Your task to perform on an android device: all mails in gmail Image 0: 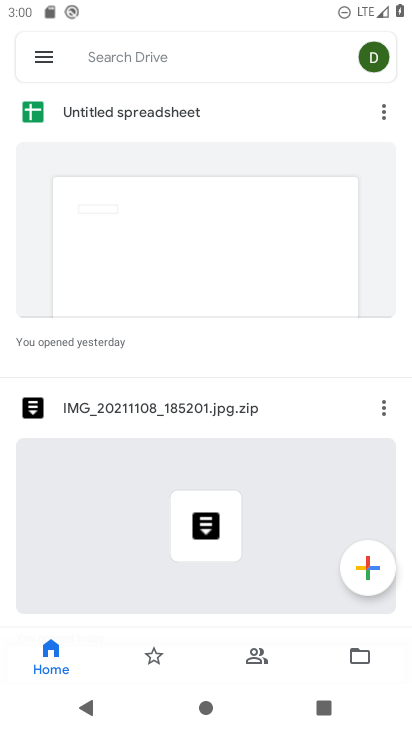
Step 0: press home button
Your task to perform on an android device: all mails in gmail Image 1: 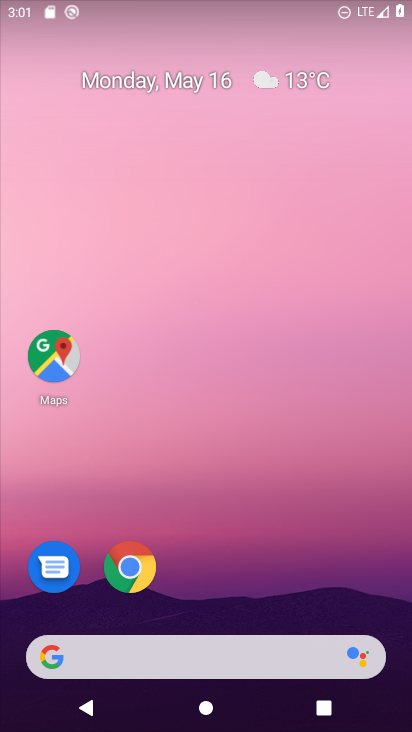
Step 1: drag from (242, 570) to (231, 27)
Your task to perform on an android device: all mails in gmail Image 2: 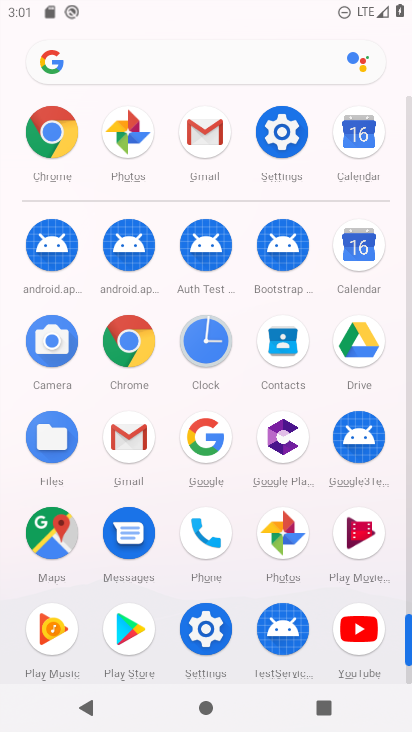
Step 2: click (134, 420)
Your task to perform on an android device: all mails in gmail Image 3: 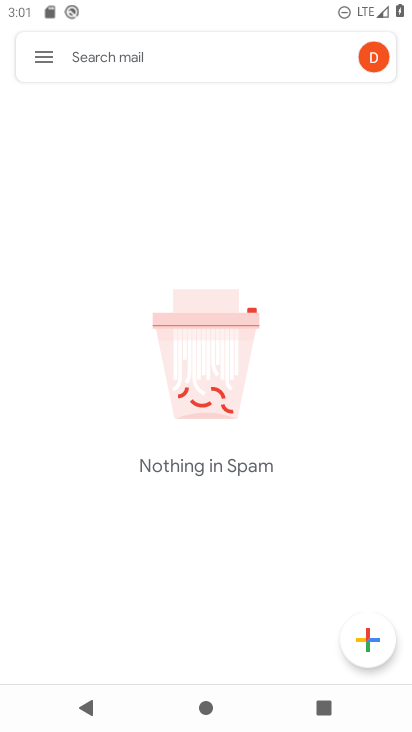
Step 3: click (47, 62)
Your task to perform on an android device: all mails in gmail Image 4: 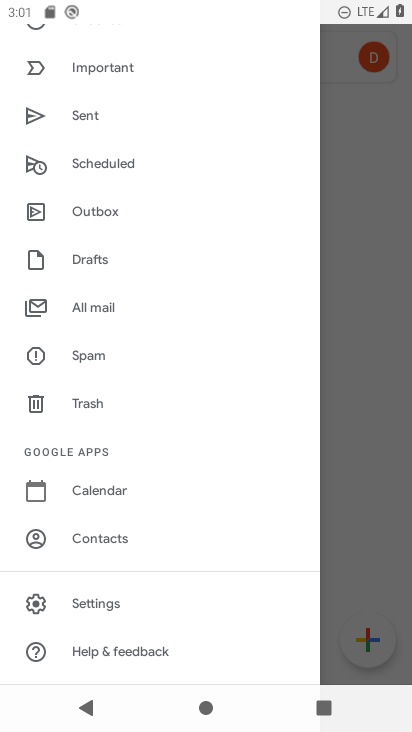
Step 4: click (96, 303)
Your task to perform on an android device: all mails in gmail Image 5: 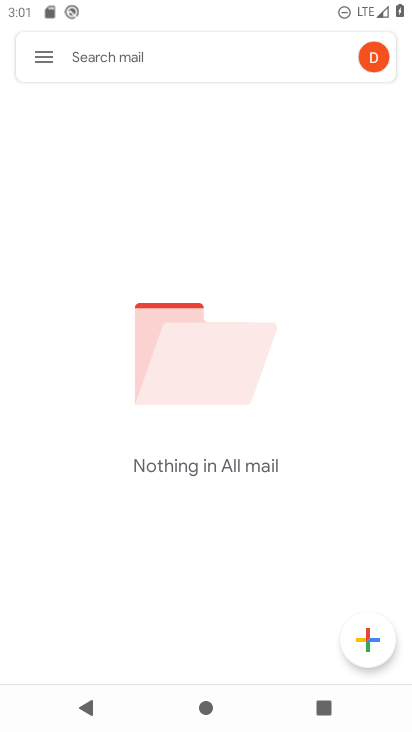
Step 5: task complete